Your task to perform on an android device: toggle sleep mode Image 0: 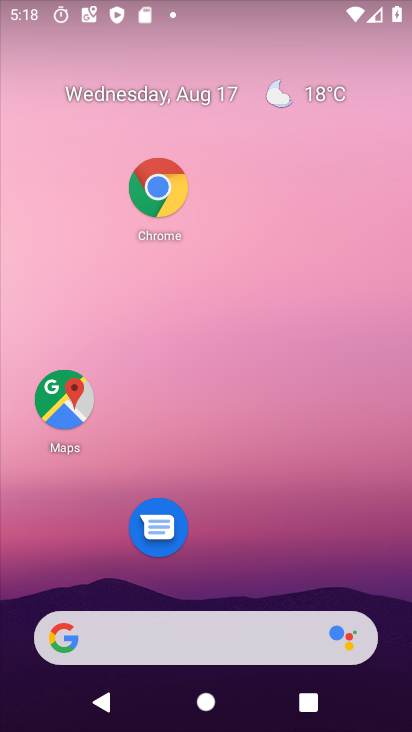
Step 0: drag from (209, 586) to (277, 25)
Your task to perform on an android device: toggle sleep mode Image 1: 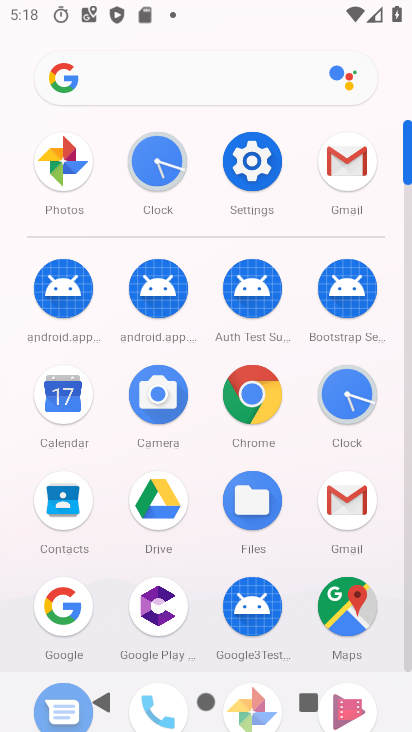
Step 1: click (259, 164)
Your task to perform on an android device: toggle sleep mode Image 2: 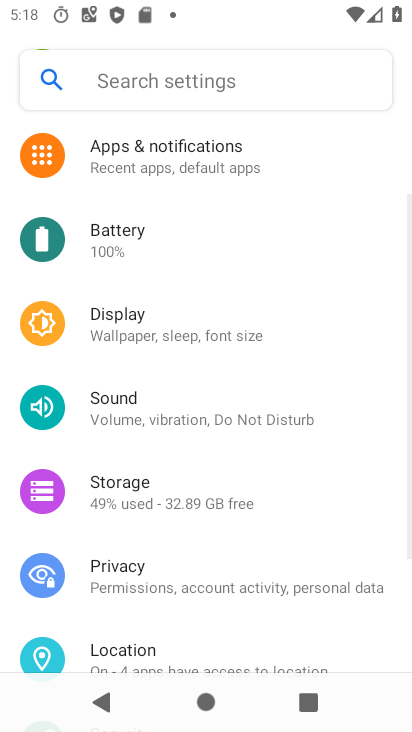
Step 2: task complete